Your task to perform on an android device: toggle notifications settings in the gmail app Image 0: 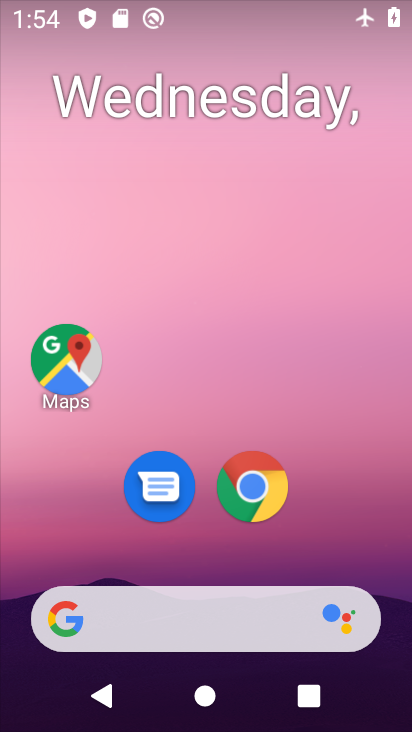
Step 0: drag from (283, 666) to (245, 111)
Your task to perform on an android device: toggle notifications settings in the gmail app Image 1: 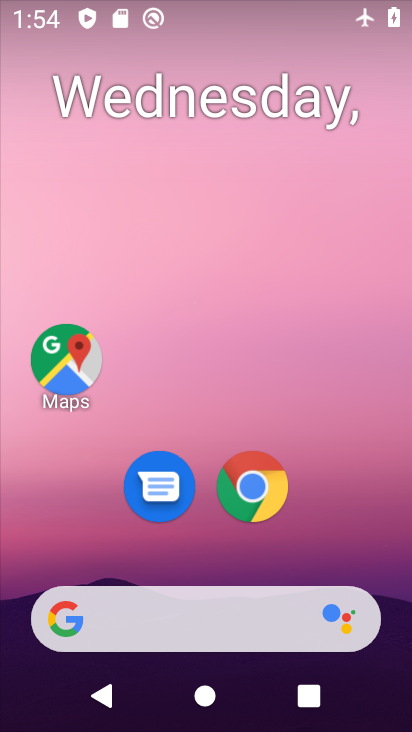
Step 1: drag from (260, 652) to (285, 138)
Your task to perform on an android device: toggle notifications settings in the gmail app Image 2: 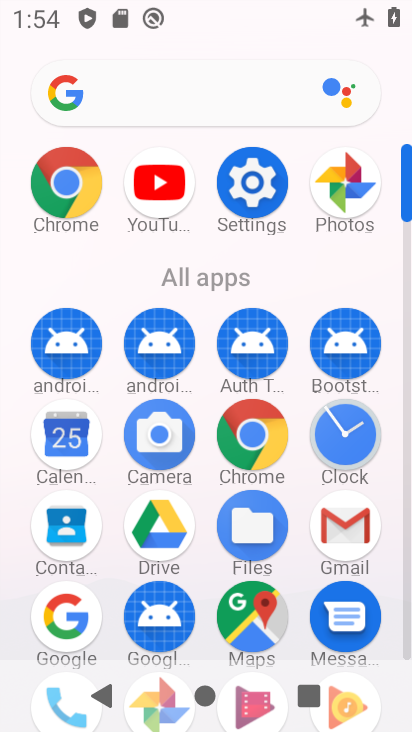
Step 2: click (343, 511)
Your task to perform on an android device: toggle notifications settings in the gmail app Image 3: 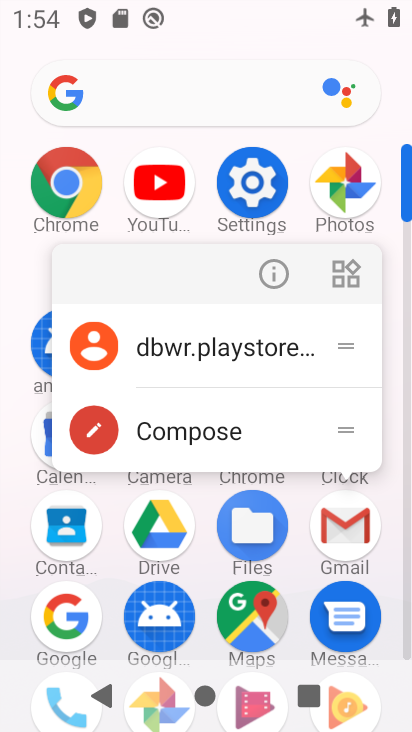
Step 3: click (279, 268)
Your task to perform on an android device: toggle notifications settings in the gmail app Image 4: 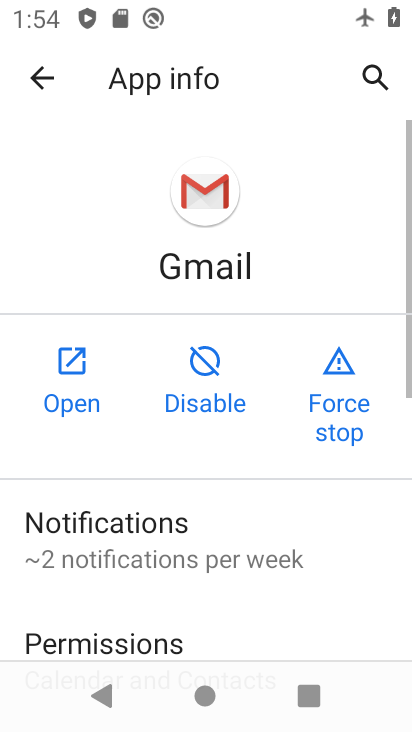
Step 4: click (176, 537)
Your task to perform on an android device: toggle notifications settings in the gmail app Image 5: 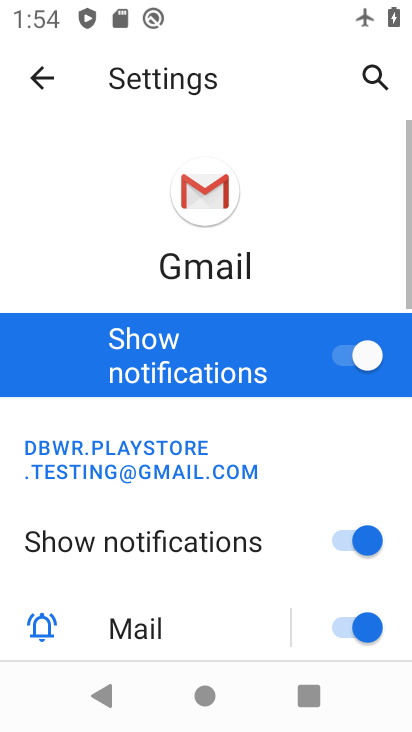
Step 5: click (365, 360)
Your task to perform on an android device: toggle notifications settings in the gmail app Image 6: 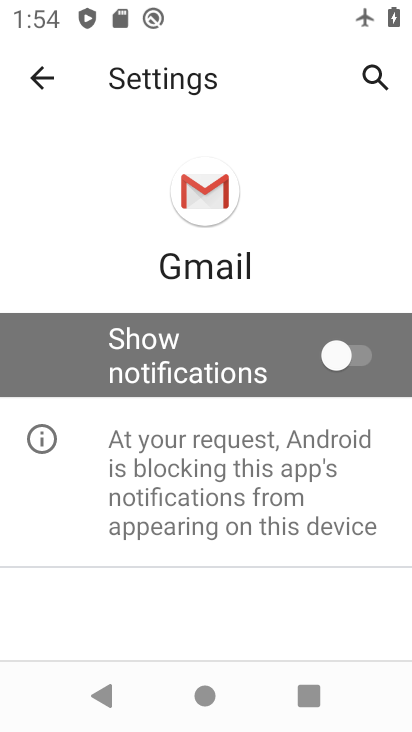
Step 6: task complete